Your task to perform on an android device: Toggle the flashlight Image 0: 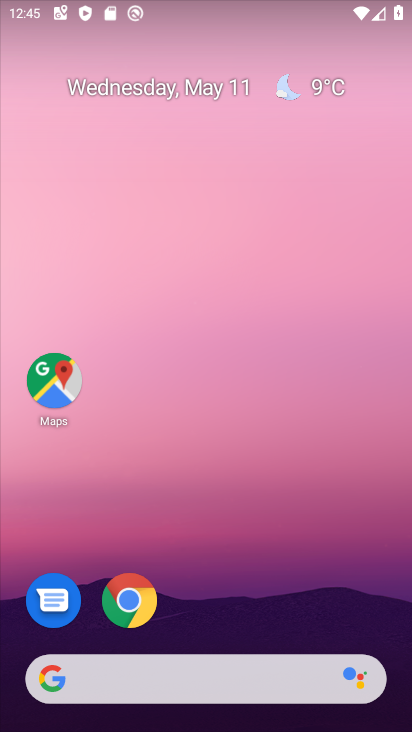
Step 0: drag from (233, 5) to (181, 705)
Your task to perform on an android device: Toggle the flashlight Image 1: 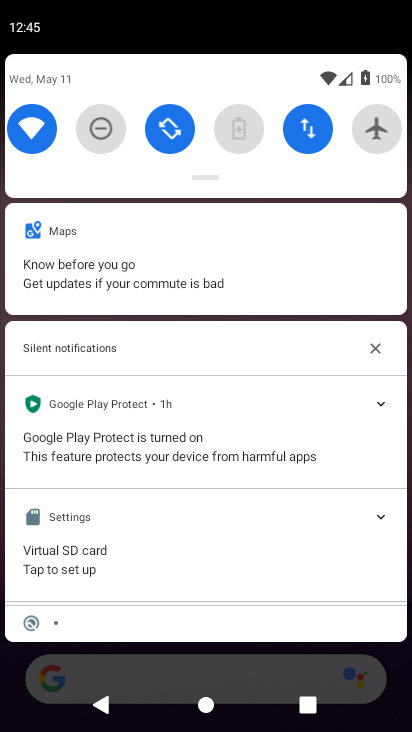
Step 1: task complete